Your task to perform on an android device: change notification settings in the gmail app Image 0: 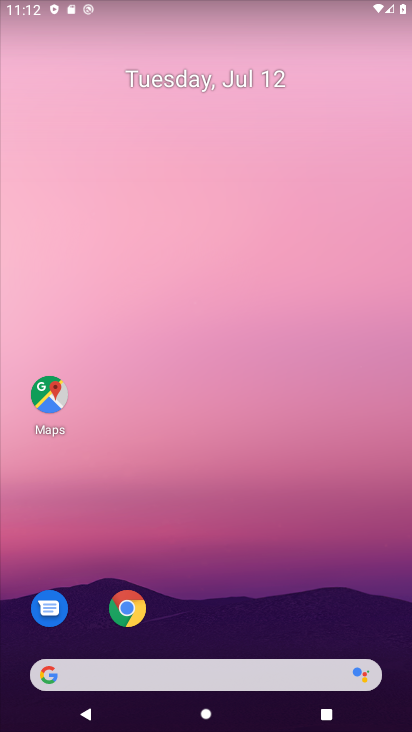
Step 0: click (235, 717)
Your task to perform on an android device: change notification settings in the gmail app Image 1: 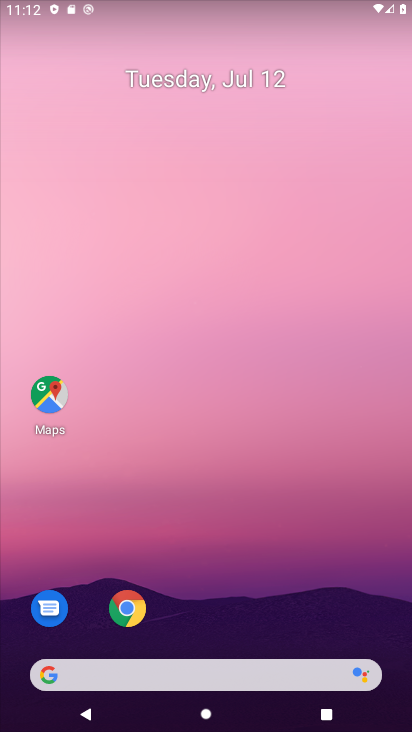
Step 1: drag from (226, 409) to (200, 178)
Your task to perform on an android device: change notification settings in the gmail app Image 2: 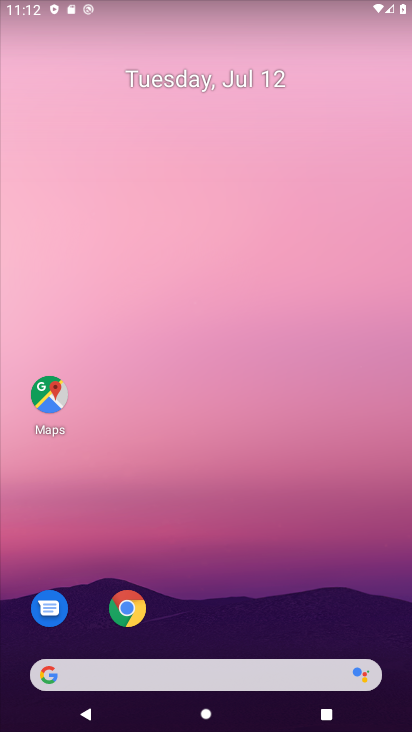
Step 2: drag from (234, 729) to (238, 149)
Your task to perform on an android device: change notification settings in the gmail app Image 3: 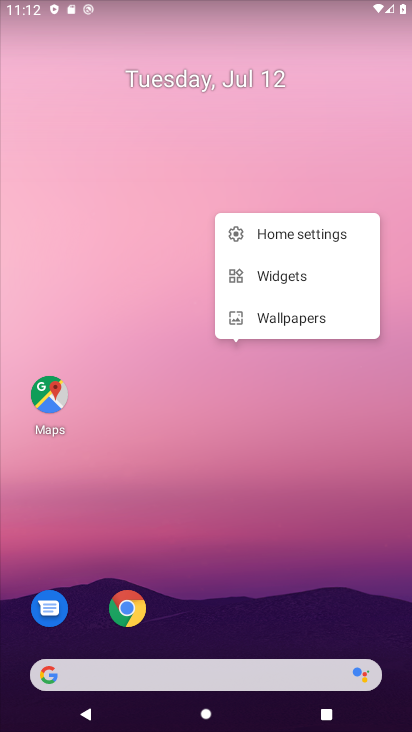
Step 3: click (265, 436)
Your task to perform on an android device: change notification settings in the gmail app Image 4: 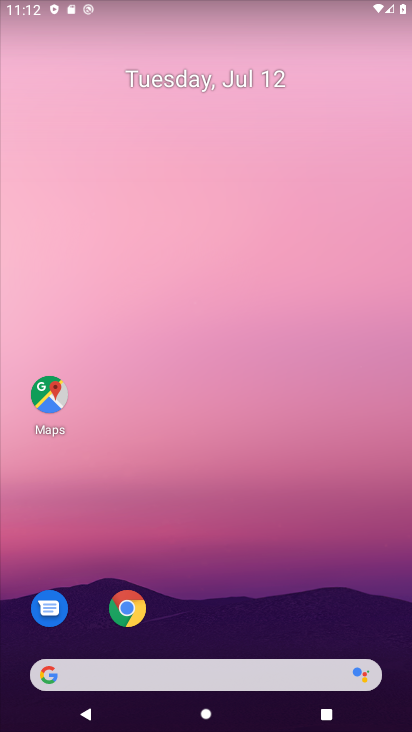
Step 4: drag from (234, 721) to (244, 136)
Your task to perform on an android device: change notification settings in the gmail app Image 5: 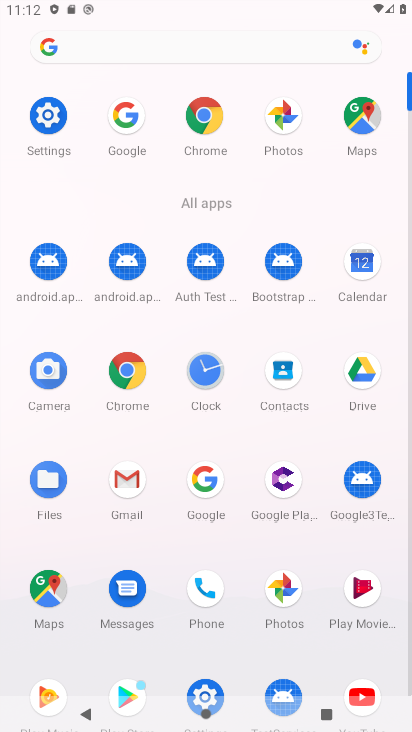
Step 5: click (128, 484)
Your task to perform on an android device: change notification settings in the gmail app Image 6: 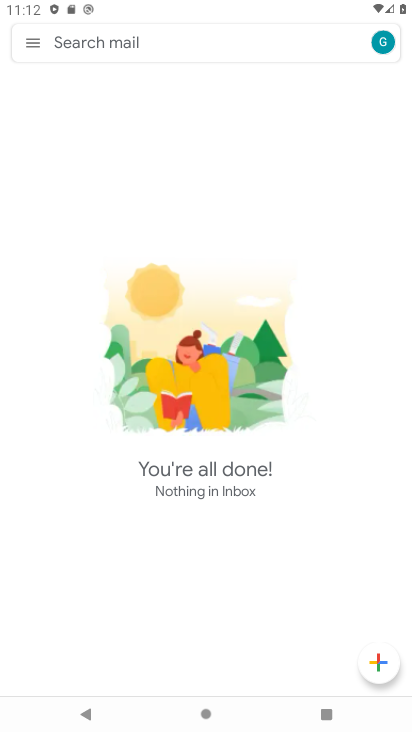
Step 6: click (30, 46)
Your task to perform on an android device: change notification settings in the gmail app Image 7: 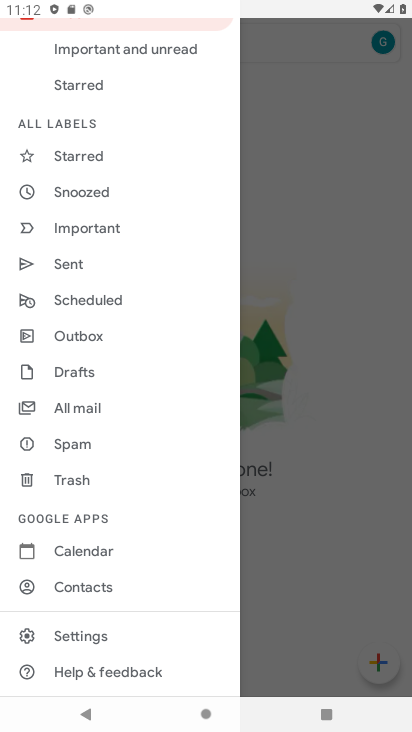
Step 7: click (74, 636)
Your task to perform on an android device: change notification settings in the gmail app Image 8: 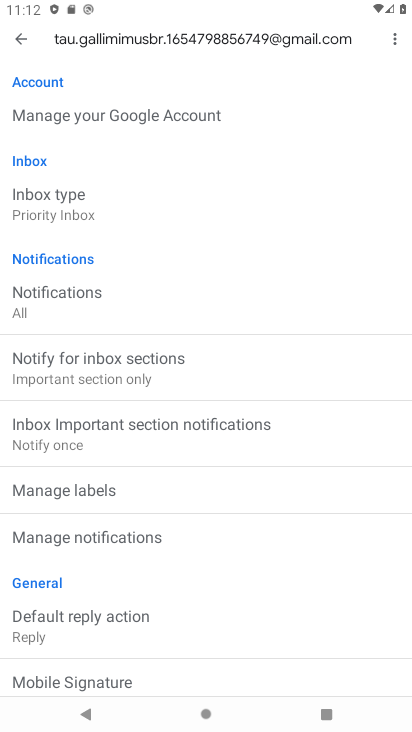
Step 8: click (32, 302)
Your task to perform on an android device: change notification settings in the gmail app Image 9: 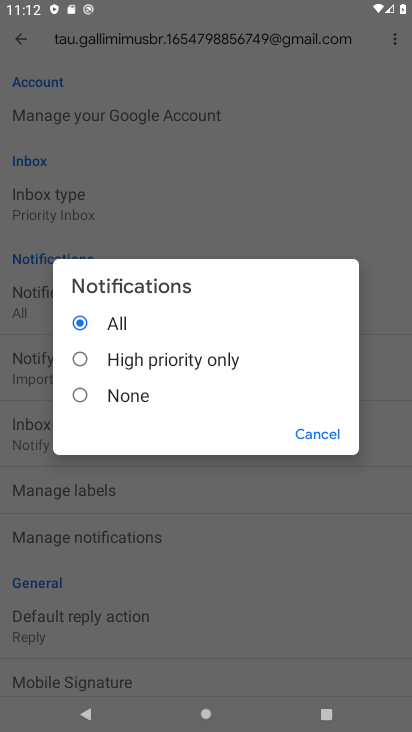
Step 9: click (74, 392)
Your task to perform on an android device: change notification settings in the gmail app Image 10: 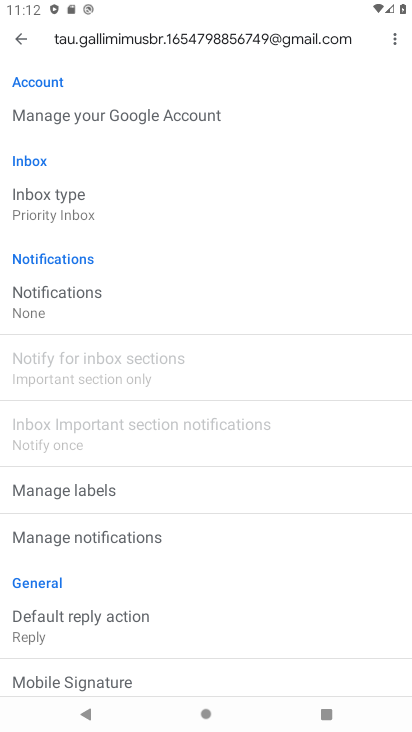
Step 10: task complete